Your task to perform on an android device: When is my next appointment? Image 0: 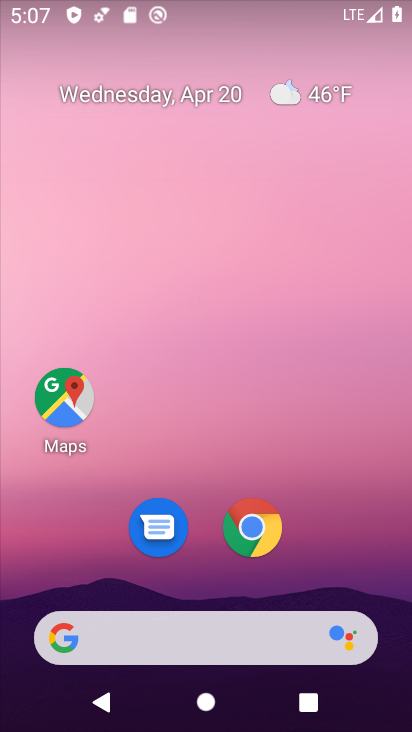
Step 0: drag from (220, 585) to (207, 126)
Your task to perform on an android device: When is my next appointment? Image 1: 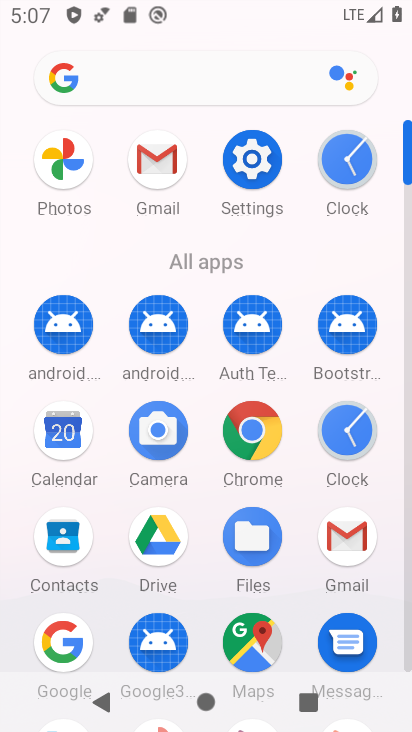
Step 1: click (60, 434)
Your task to perform on an android device: When is my next appointment? Image 2: 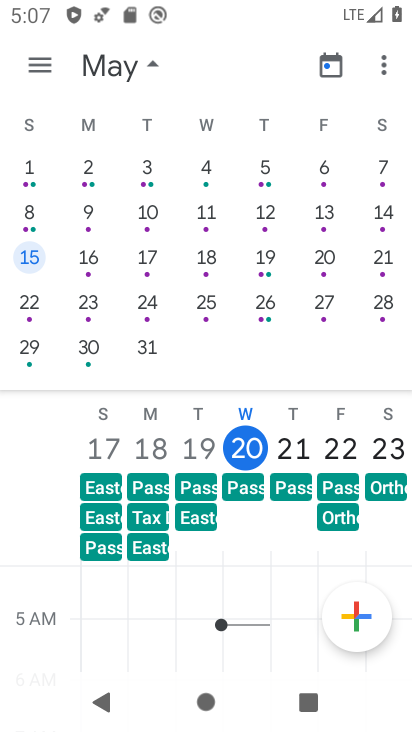
Step 2: click (35, 67)
Your task to perform on an android device: When is my next appointment? Image 3: 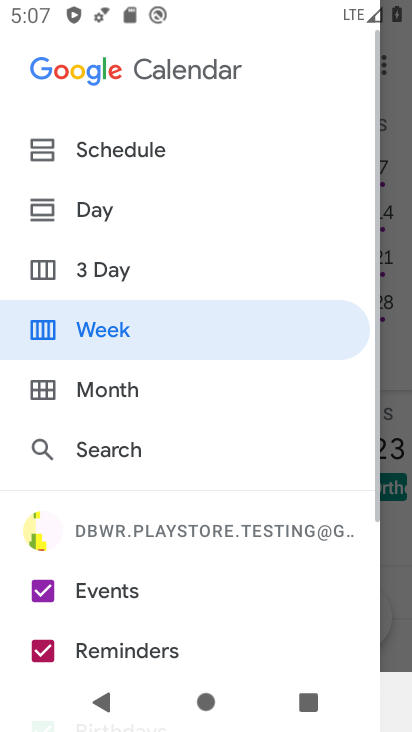
Step 3: click (87, 208)
Your task to perform on an android device: When is my next appointment? Image 4: 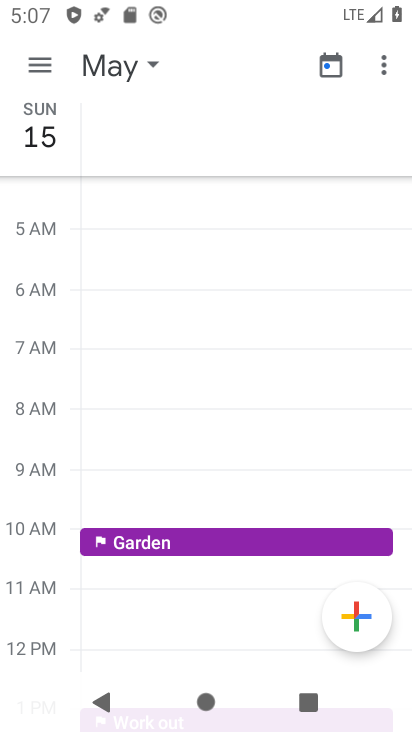
Step 4: click (144, 59)
Your task to perform on an android device: When is my next appointment? Image 5: 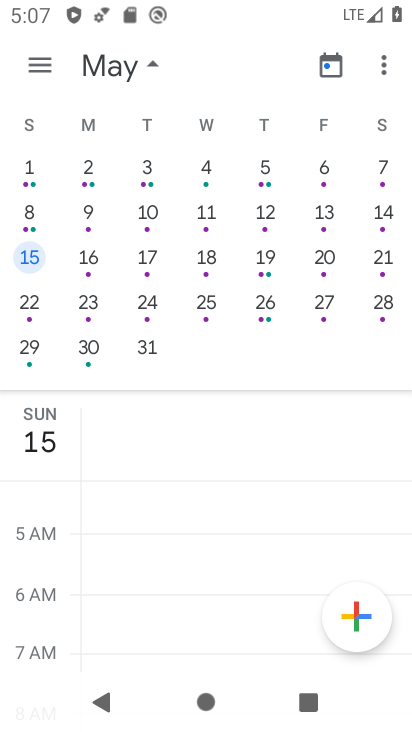
Step 5: drag from (254, 230) to (409, 218)
Your task to perform on an android device: When is my next appointment? Image 6: 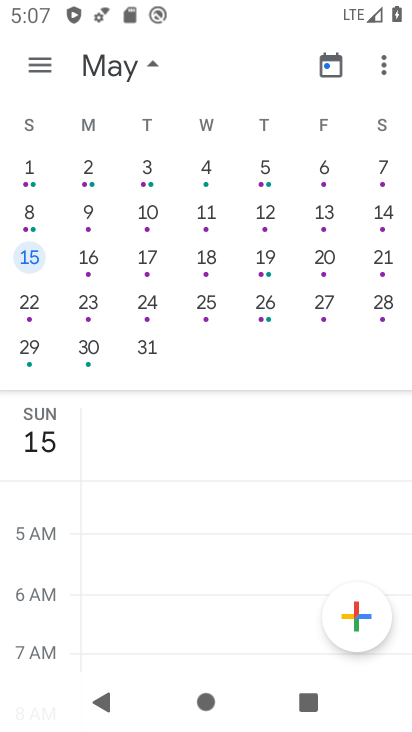
Step 6: drag from (111, 242) to (405, 623)
Your task to perform on an android device: When is my next appointment? Image 7: 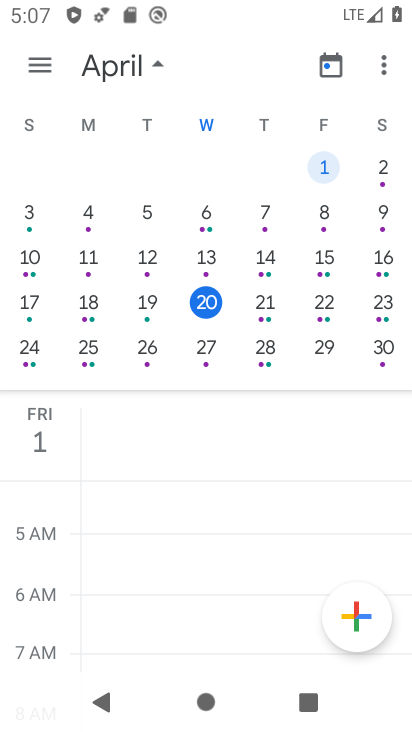
Step 7: click (208, 305)
Your task to perform on an android device: When is my next appointment? Image 8: 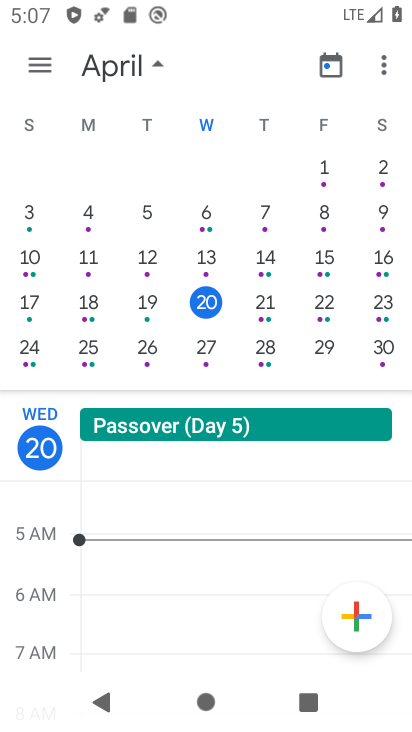
Step 8: task complete